Your task to perform on an android device: When is my next meeting? Image 0: 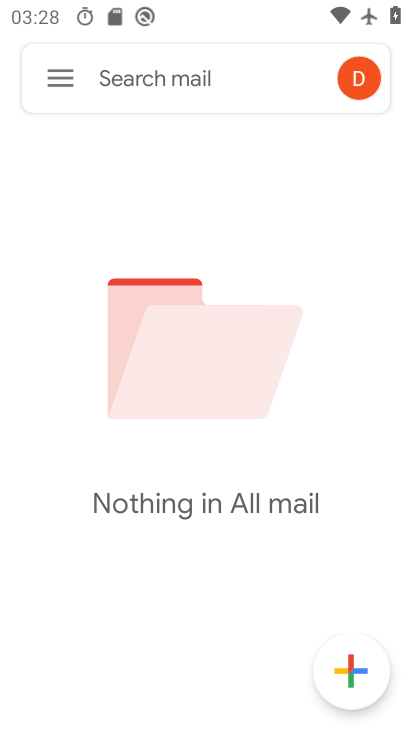
Step 0: press home button
Your task to perform on an android device: When is my next meeting? Image 1: 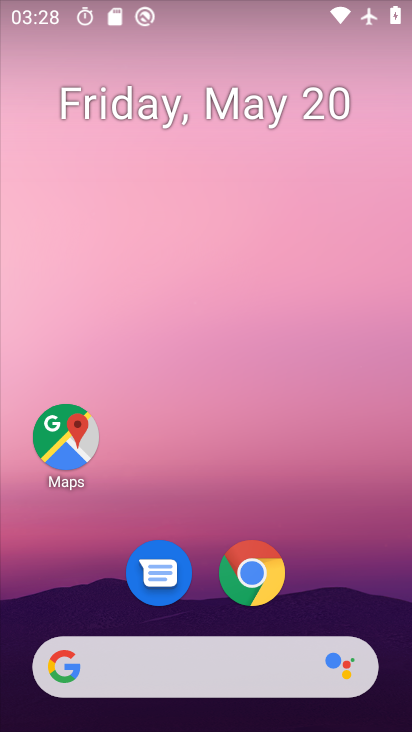
Step 1: drag from (212, 619) to (175, 278)
Your task to perform on an android device: When is my next meeting? Image 2: 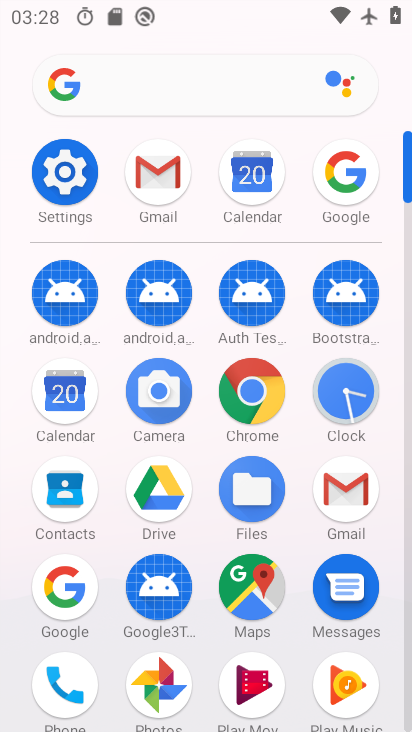
Step 2: click (81, 401)
Your task to perform on an android device: When is my next meeting? Image 3: 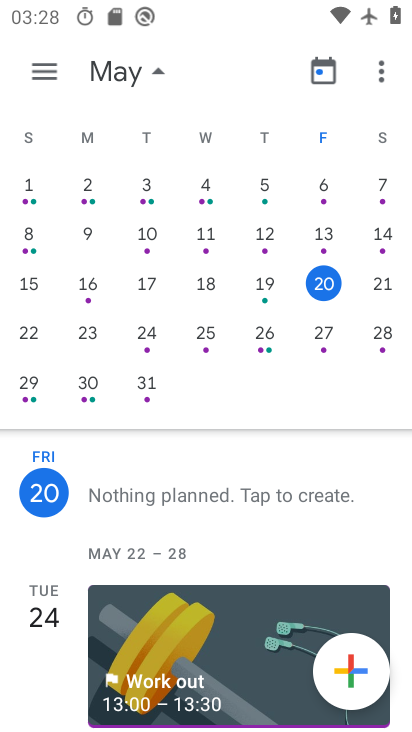
Step 3: task complete